Your task to perform on an android device: Open eBay Image 0: 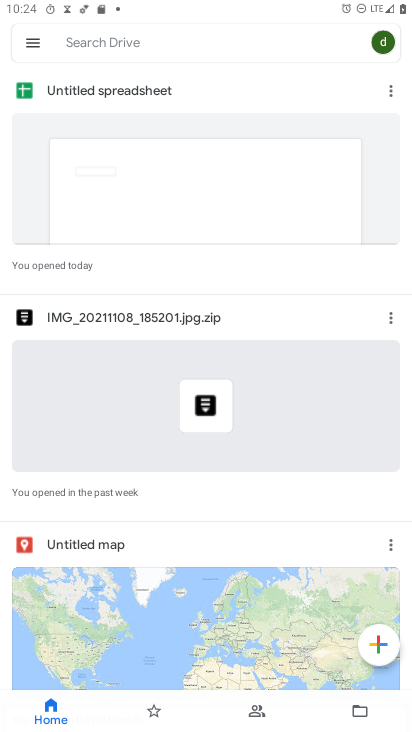
Step 0: press home button
Your task to perform on an android device: Open eBay Image 1: 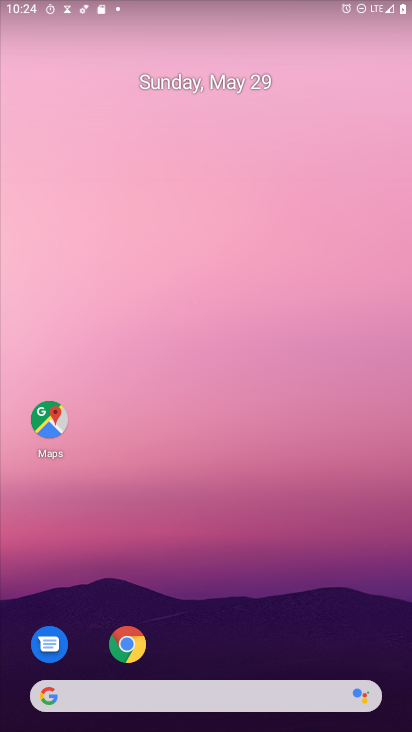
Step 1: click (137, 635)
Your task to perform on an android device: Open eBay Image 2: 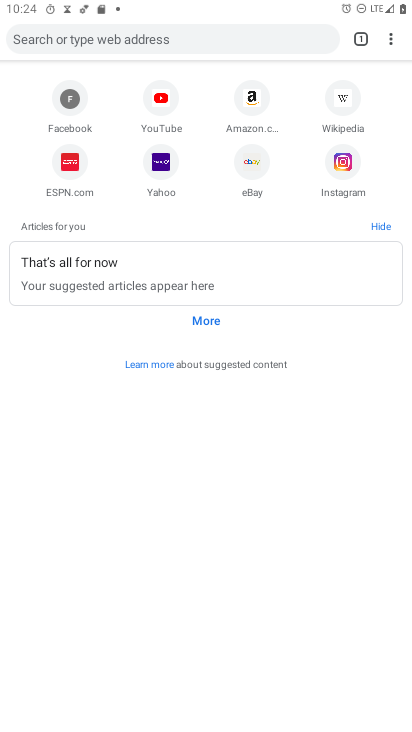
Step 2: click (254, 160)
Your task to perform on an android device: Open eBay Image 3: 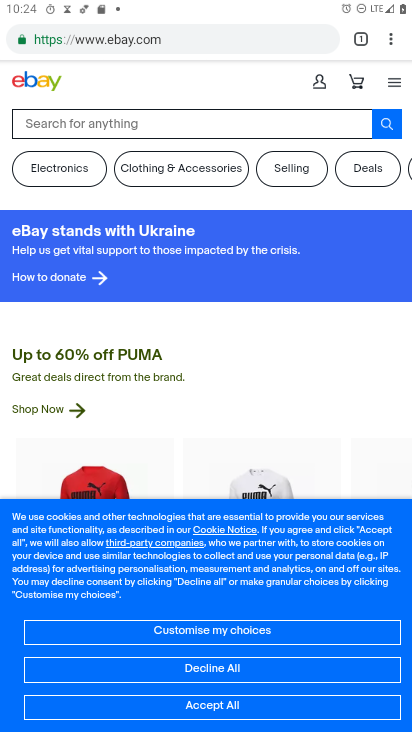
Step 3: task complete